Your task to perform on an android device: Show me recent news Image 0: 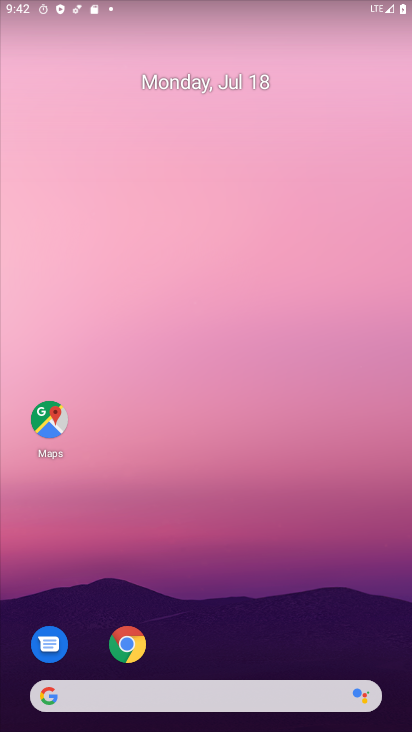
Step 0: drag from (9, 500) to (398, 531)
Your task to perform on an android device: Show me recent news Image 1: 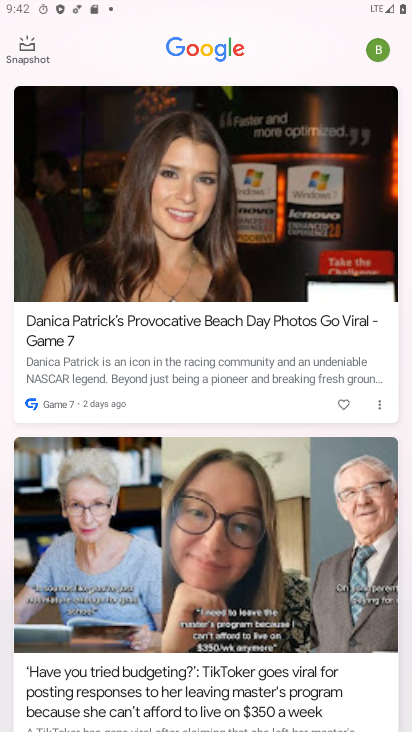
Step 1: task complete